Your task to perform on an android device: see tabs open on other devices in the chrome app Image 0: 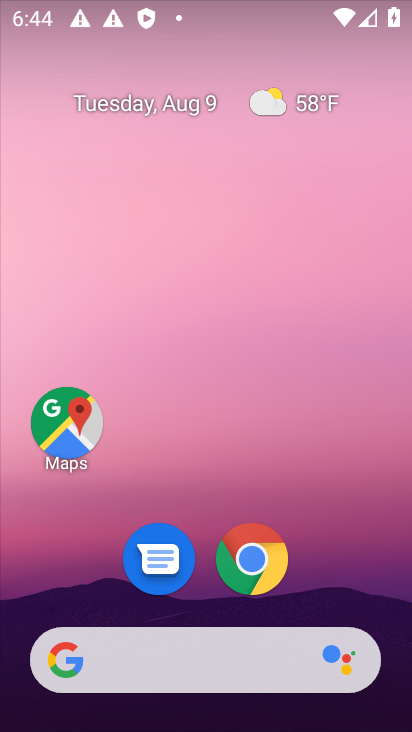
Step 0: click (253, 556)
Your task to perform on an android device: see tabs open on other devices in the chrome app Image 1: 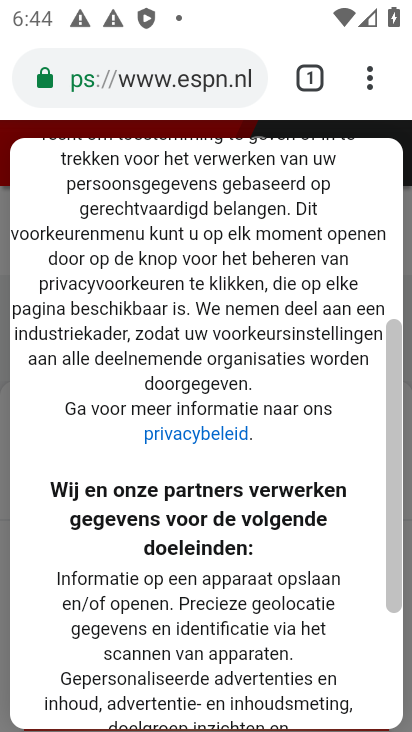
Step 1: click (370, 76)
Your task to perform on an android device: see tabs open on other devices in the chrome app Image 2: 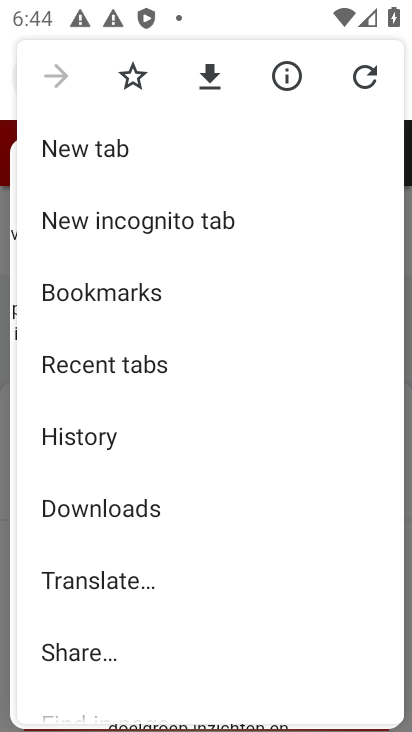
Step 2: click (115, 366)
Your task to perform on an android device: see tabs open on other devices in the chrome app Image 3: 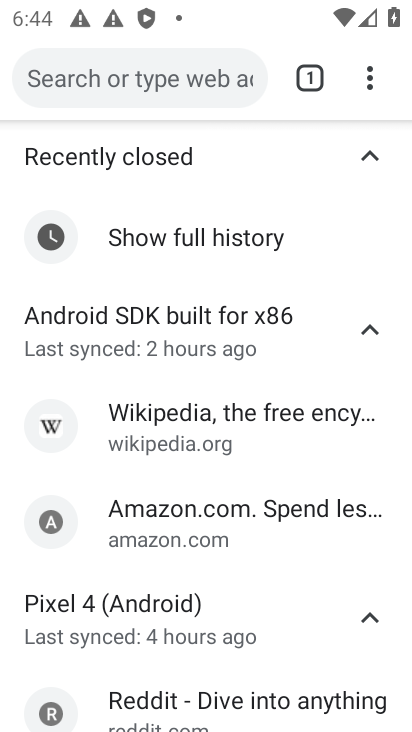
Step 3: task complete